Your task to perform on an android device: toggle notification dots Image 0: 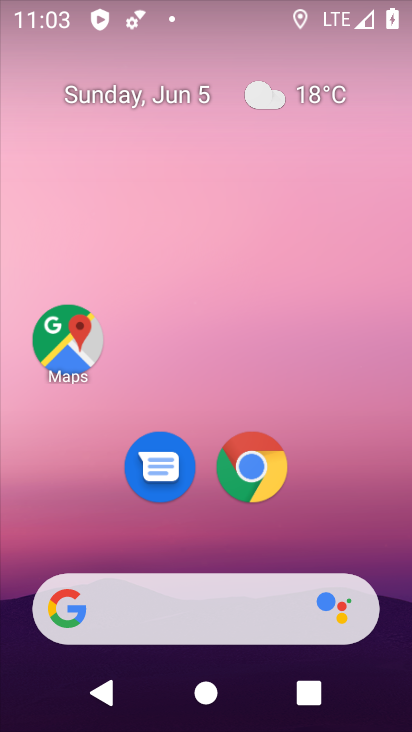
Step 0: drag from (222, 543) to (301, 5)
Your task to perform on an android device: toggle notification dots Image 1: 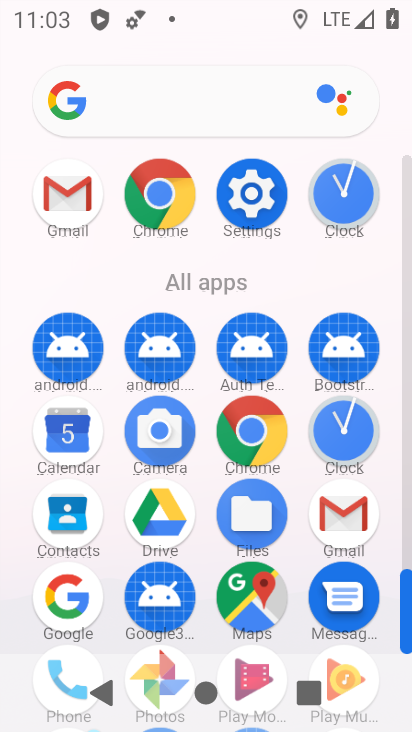
Step 1: click (258, 184)
Your task to perform on an android device: toggle notification dots Image 2: 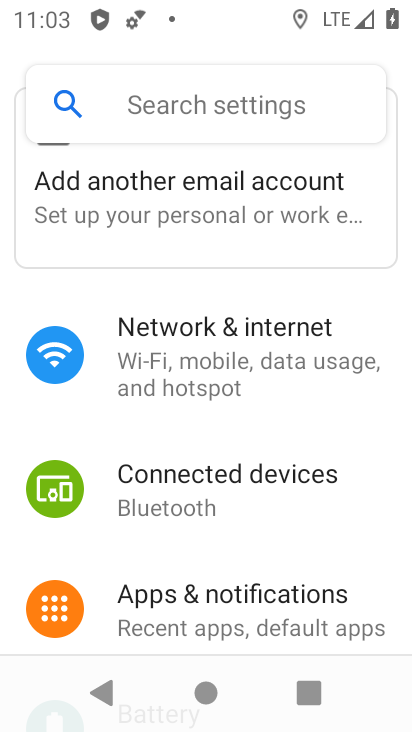
Step 2: click (161, 584)
Your task to perform on an android device: toggle notification dots Image 3: 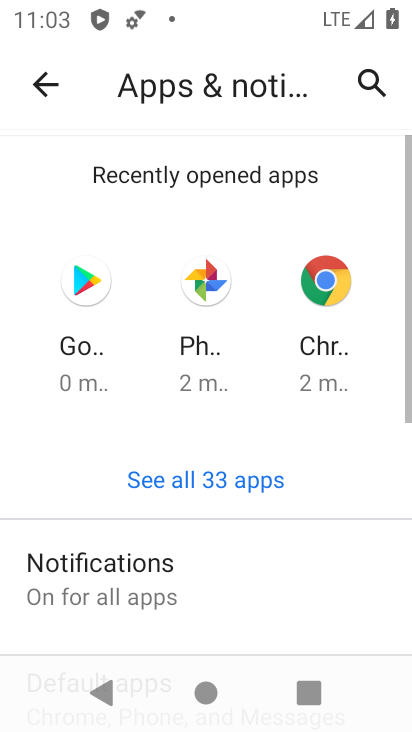
Step 3: click (186, 565)
Your task to perform on an android device: toggle notification dots Image 4: 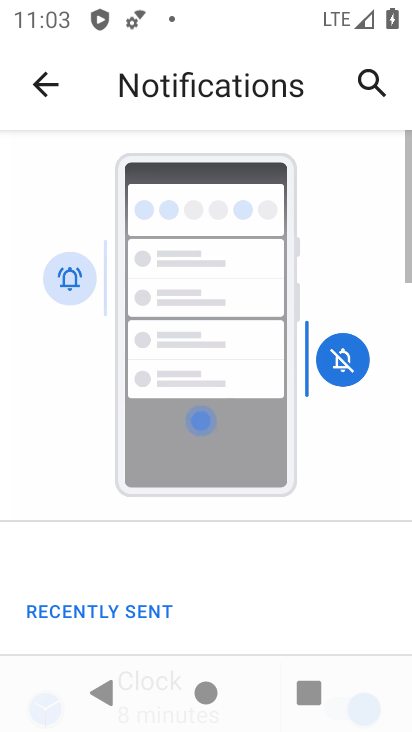
Step 4: drag from (186, 565) to (125, 51)
Your task to perform on an android device: toggle notification dots Image 5: 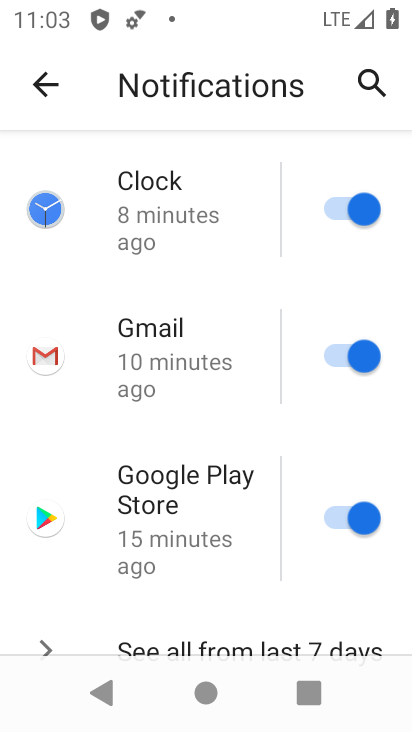
Step 5: drag from (210, 504) to (209, 34)
Your task to perform on an android device: toggle notification dots Image 6: 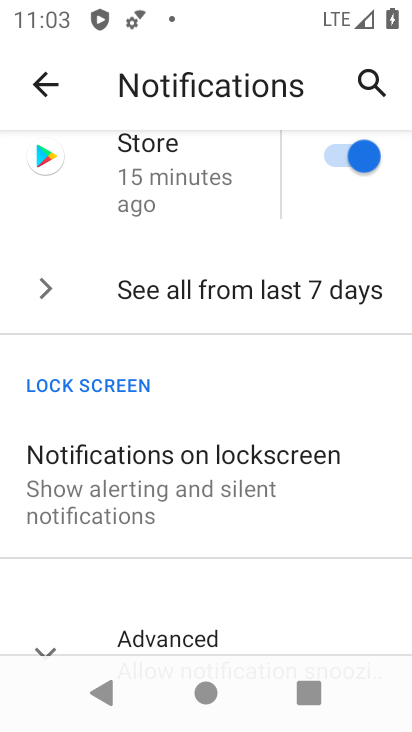
Step 6: click (143, 625)
Your task to perform on an android device: toggle notification dots Image 7: 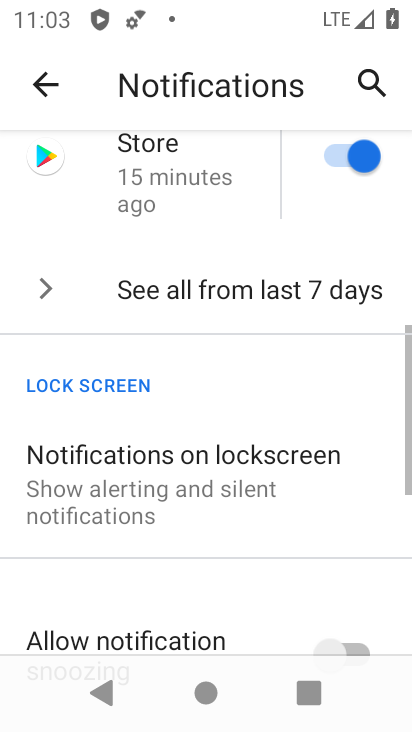
Step 7: drag from (143, 625) to (177, 165)
Your task to perform on an android device: toggle notification dots Image 8: 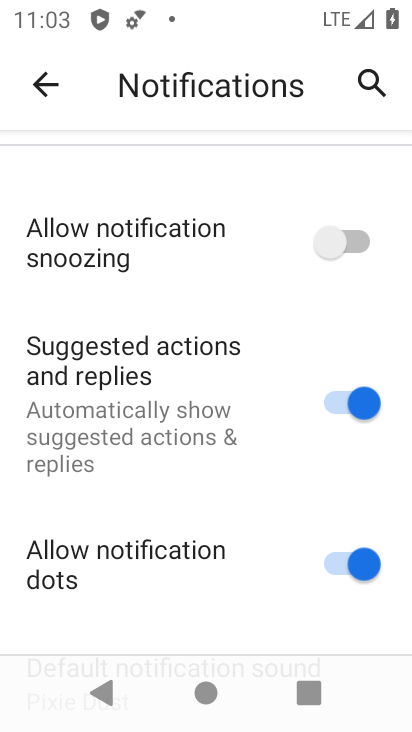
Step 8: click (320, 562)
Your task to perform on an android device: toggle notification dots Image 9: 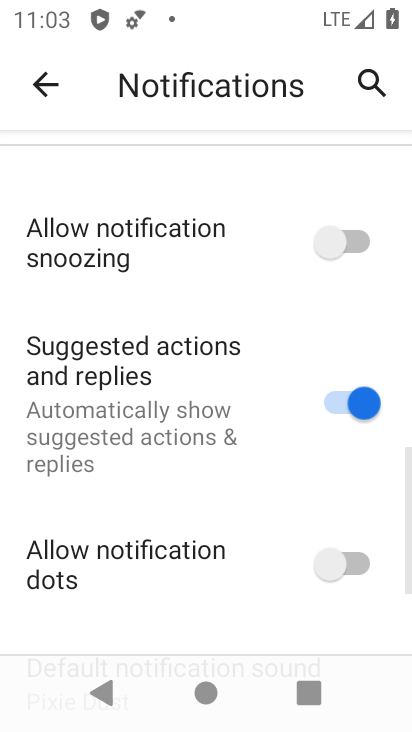
Step 9: task complete